Your task to perform on an android device: Go to Android settings Image 0: 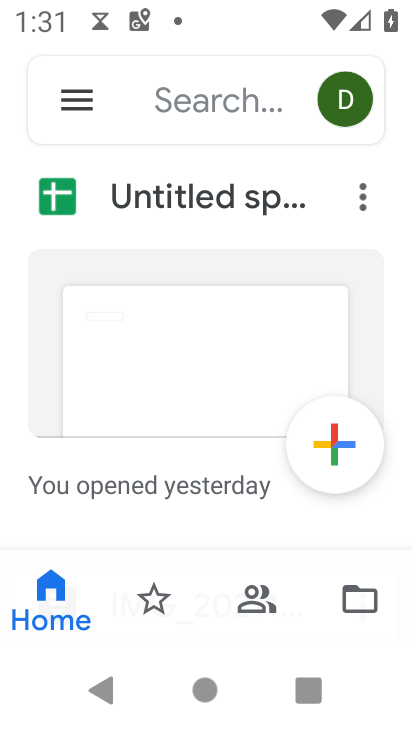
Step 0: press home button
Your task to perform on an android device: Go to Android settings Image 1: 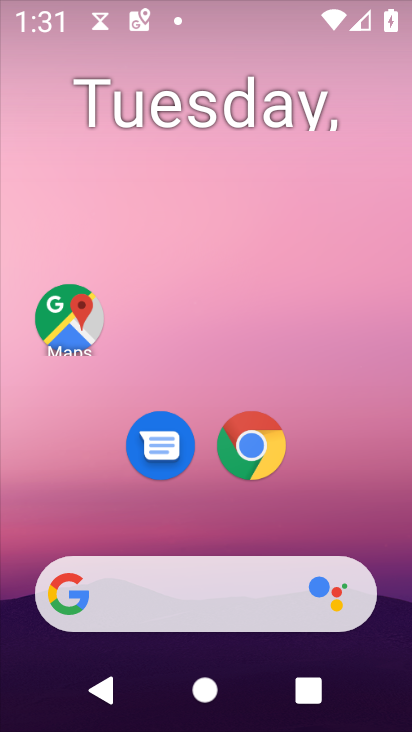
Step 1: drag from (210, 619) to (266, 38)
Your task to perform on an android device: Go to Android settings Image 2: 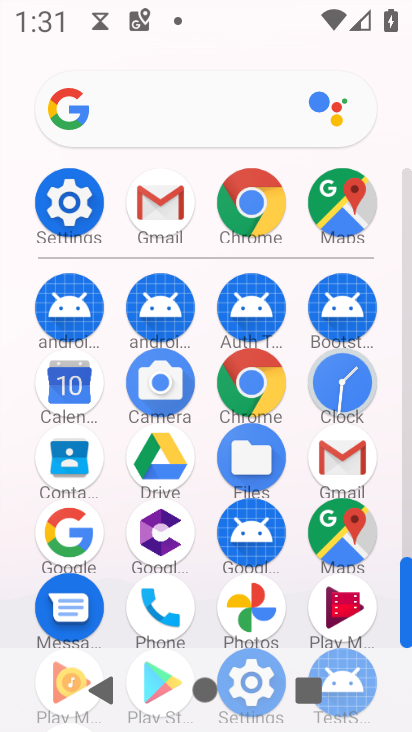
Step 2: drag from (285, 641) to (299, 326)
Your task to perform on an android device: Go to Android settings Image 3: 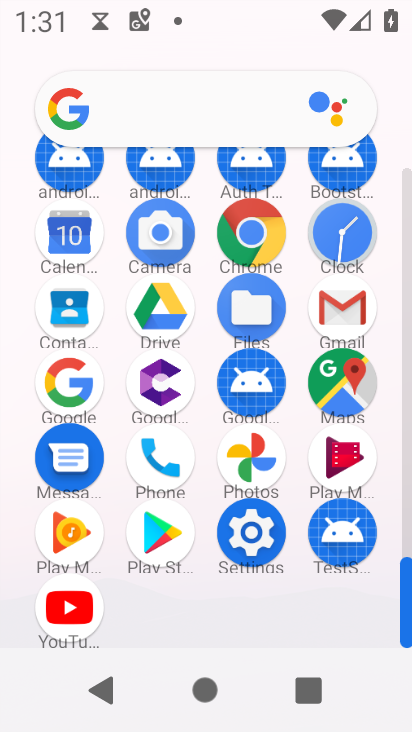
Step 3: click (231, 537)
Your task to perform on an android device: Go to Android settings Image 4: 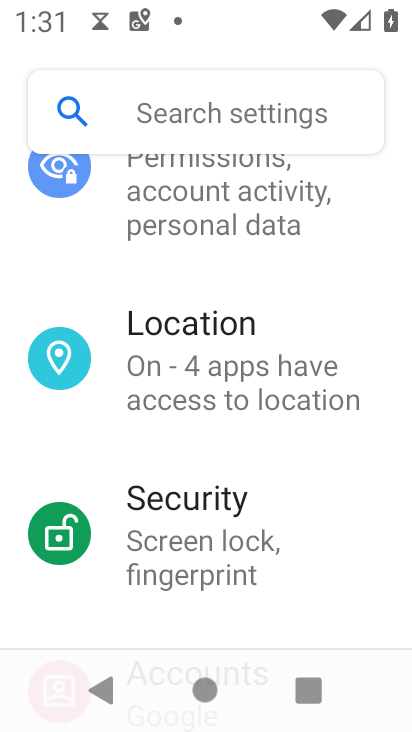
Step 4: drag from (256, 595) to (268, 108)
Your task to perform on an android device: Go to Android settings Image 5: 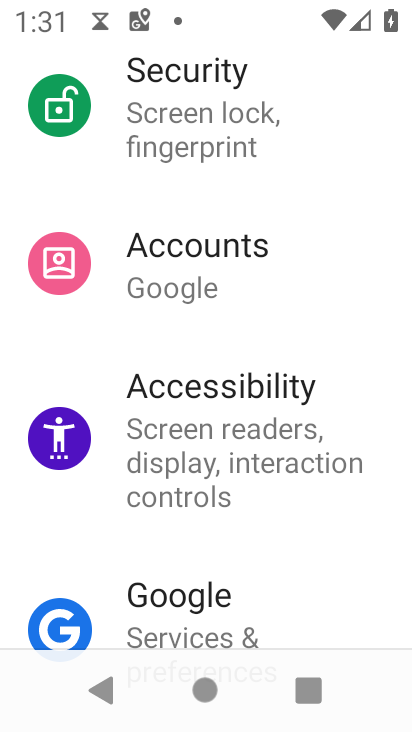
Step 5: drag from (245, 596) to (309, 159)
Your task to perform on an android device: Go to Android settings Image 6: 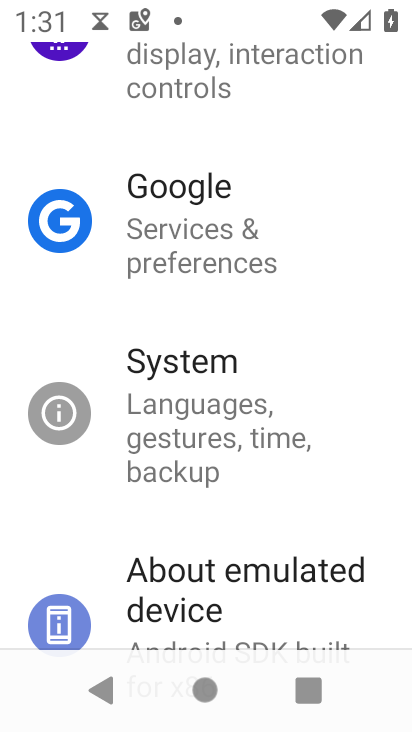
Step 6: click (251, 613)
Your task to perform on an android device: Go to Android settings Image 7: 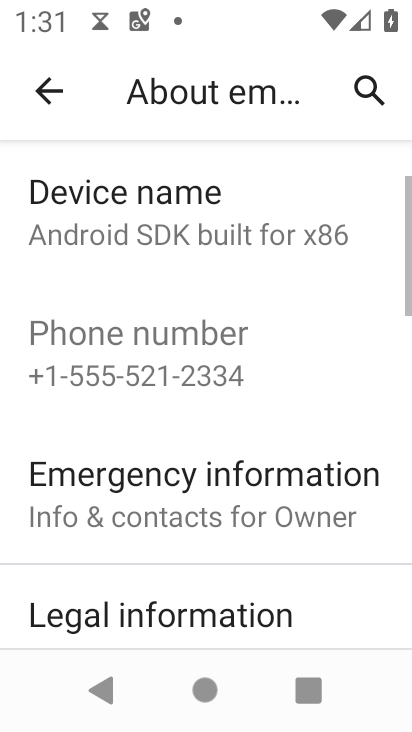
Step 7: drag from (255, 527) to (270, 154)
Your task to perform on an android device: Go to Android settings Image 8: 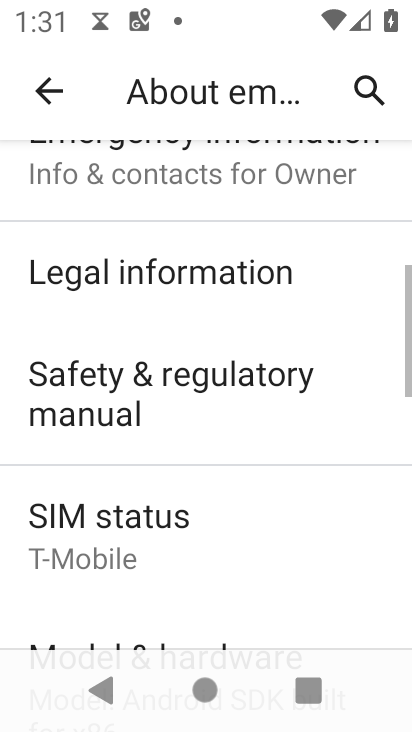
Step 8: drag from (227, 579) to (265, 113)
Your task to perform on an android device: Go to Android settings Image 9: 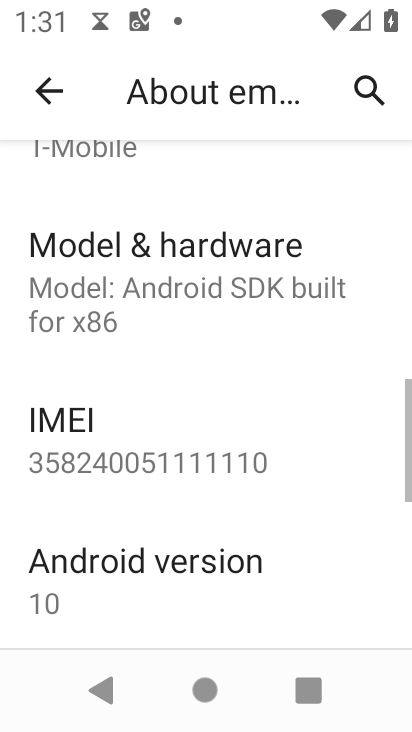
Step 9: click (225, 600)
Your task to perform on an android device: Go to Android settings Image 10: 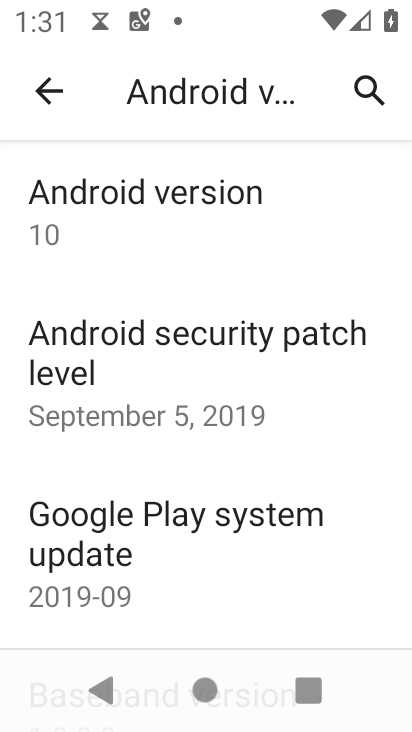
Step 10: task complete